Your task to perform on an android device: Open Chrome and go to the settings page Image 0: 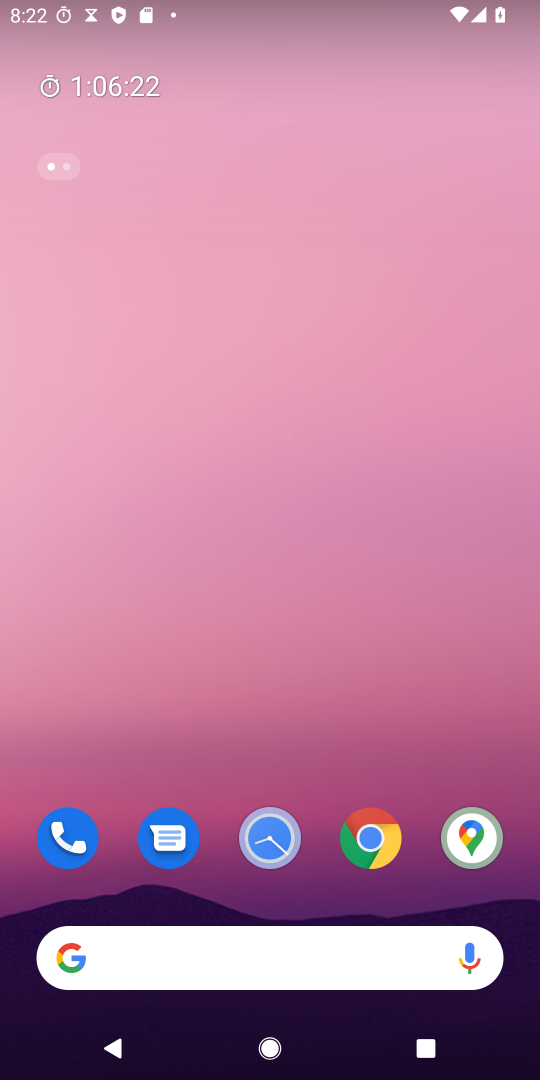
Step 0: press home button
Your task to perform on an android device: Open Chrome and go to the settings page Image 1: 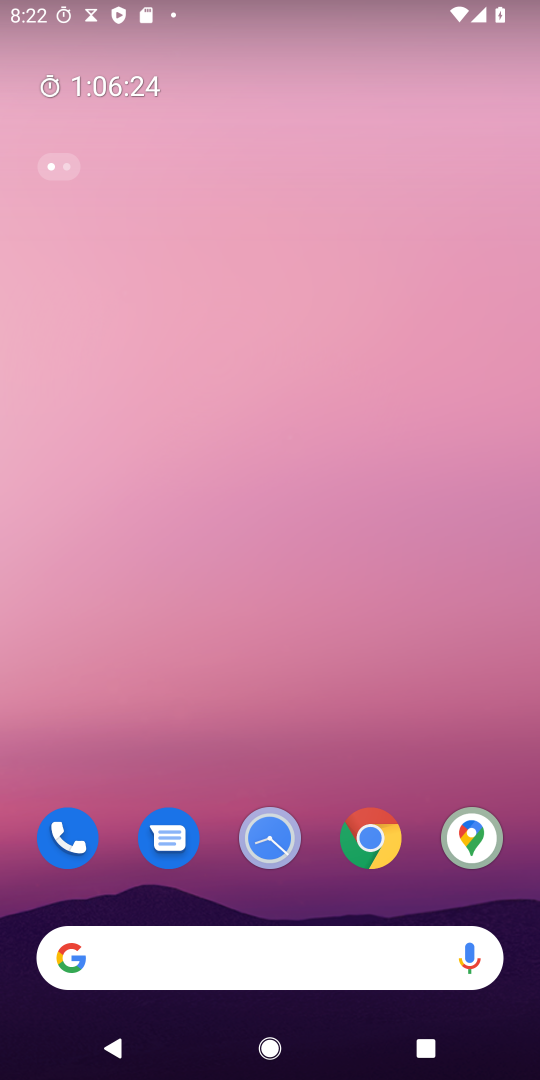
Step 1: drag from (284, 913) to (372, 54)
Your task to perform on an android device: Open Chrome and go to the settings page Image 2: 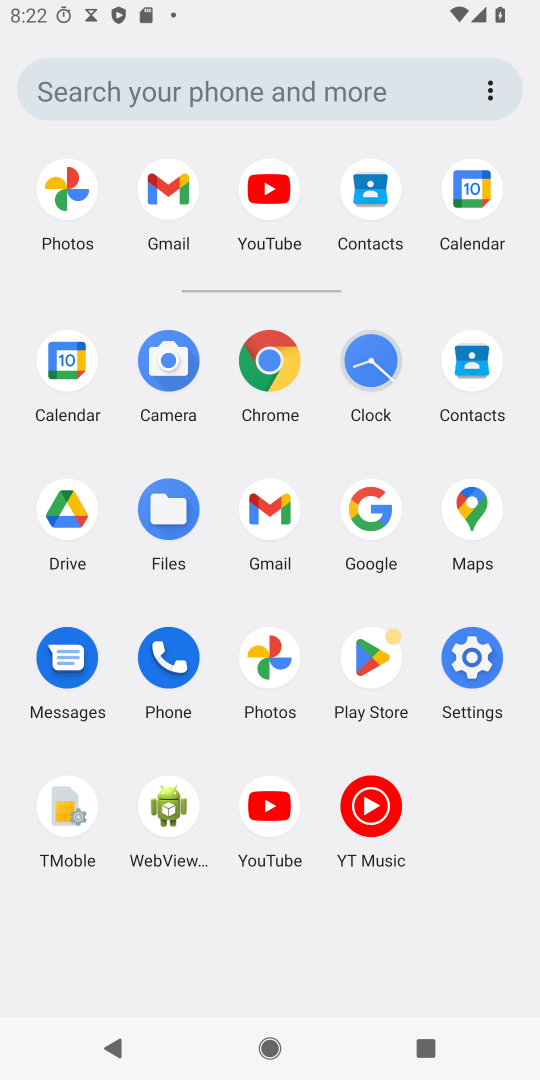
Step 2: click (246, 334)
Your task to perform on an android device: Open Chrome and go to the settings page Image 3: 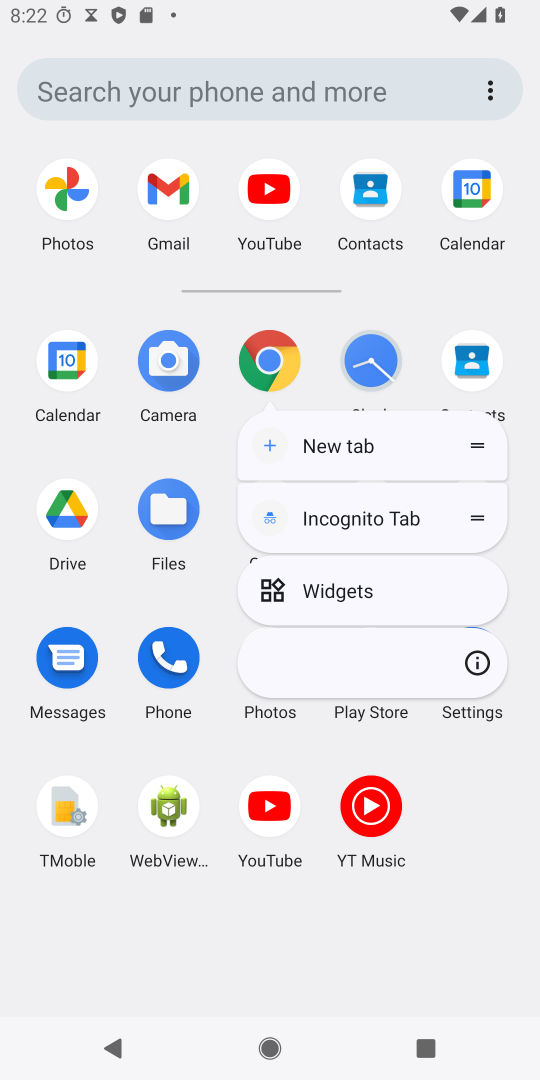
Step 3: click (265, 346)
Your task to perform on an android device: Open Chrome and go to the settings page Image 4: 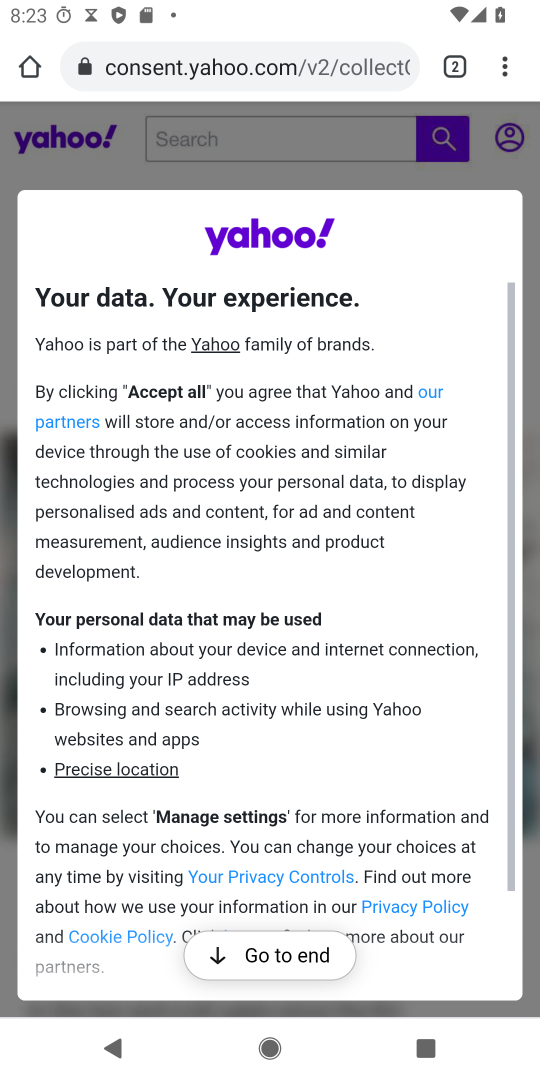
Step 4: task complete